Your task to perform on an android device: toggle improve location accuracy Image 0: 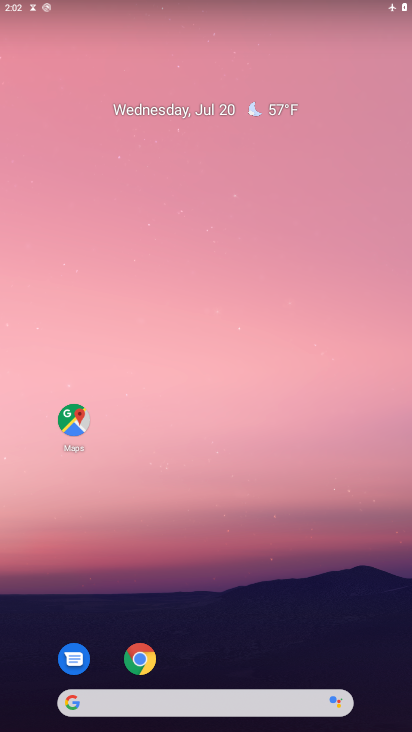
Step 0: click (325, 60)
Your task to perform on an android device: toggle improve location accuracy Image 1: 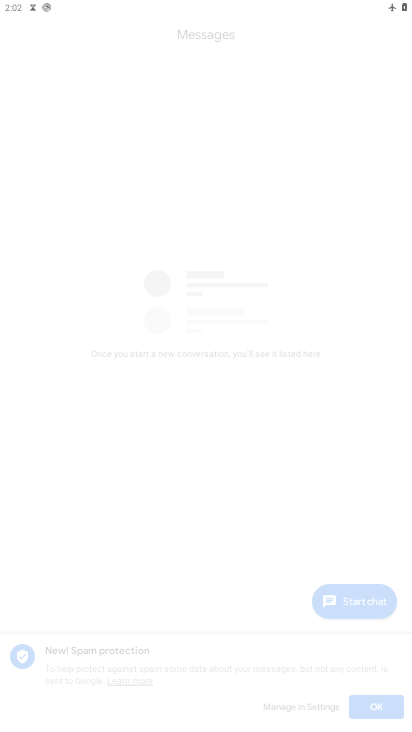
Step 1: drag from (7, 689) to (227, 256)
Your task to perform on an android device: toggle improve location accuracy Image 2: 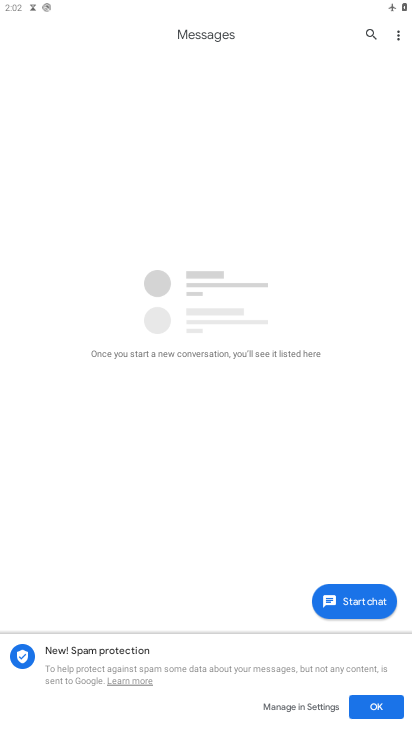
Step 2: press back button
Your task to perform on an android device: toggle improve location accuracy Image 3: 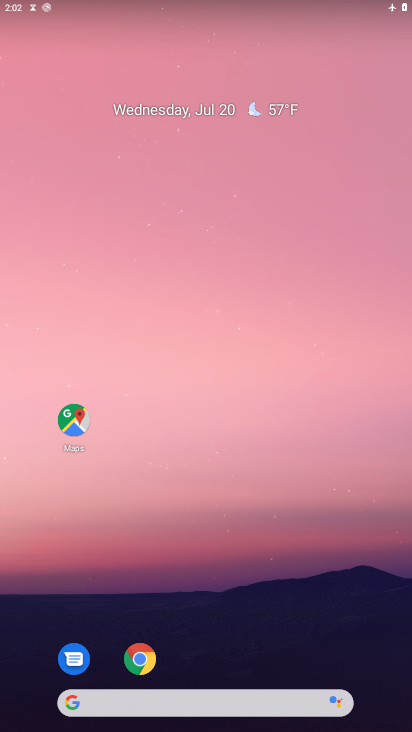
Step 3: drag from (39, 698) to (283, 136)
Your task to perform on an android device: toggle improve location accuracy Image 4: 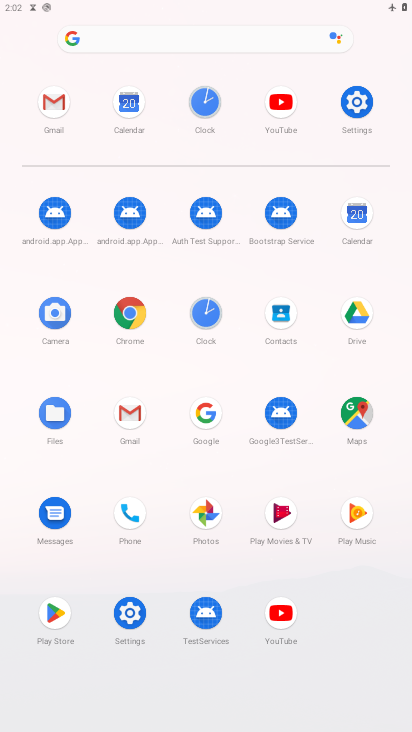
Step 4: click (135, 612)
Your task to perform on an android device: toggle improve location accuracy Image 5: 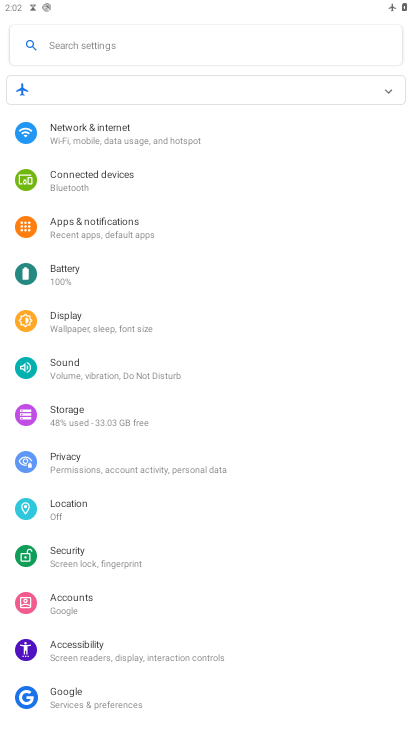
Step 5: click (89, 505)
Your task to perform on an android device: toggle improve location accuracy Image 6: 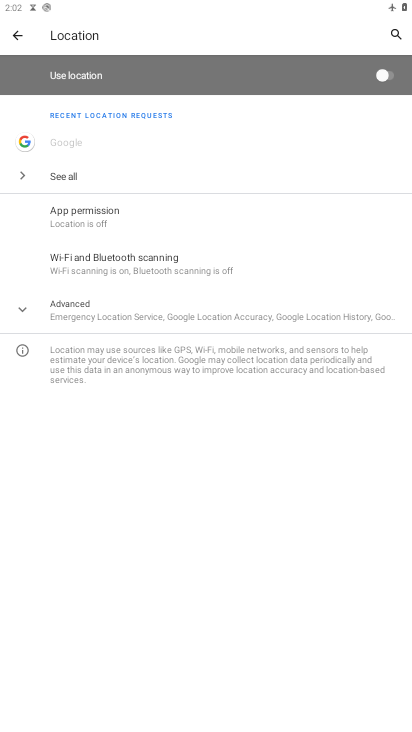
Step 6: click (86, 305)
Your task to perform on an android device: toggle improve location accuracy Image 7: 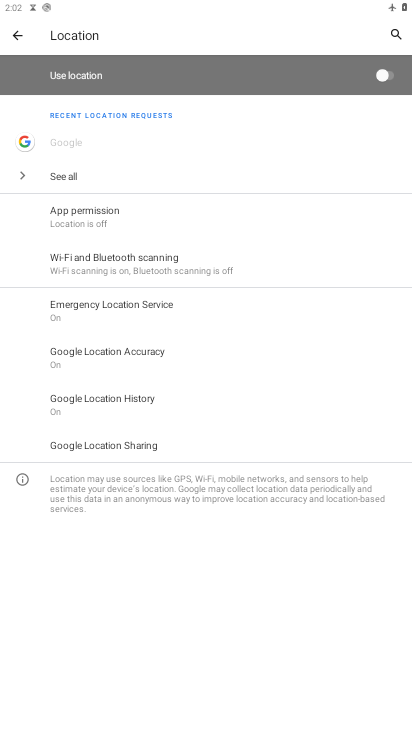
Step 7: task complete